Your task to perform on an android device: Open the stopwatch Image 0: 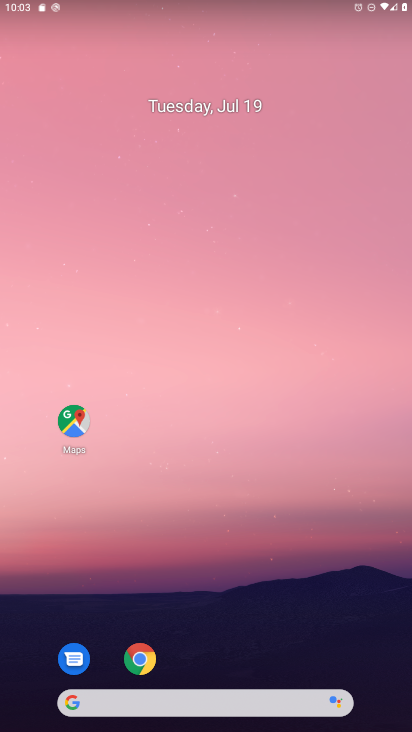
Step 0: drag from (202, 606) to (200, 268)
Your task to perform on an android device: Open the stopwatch Image 1: 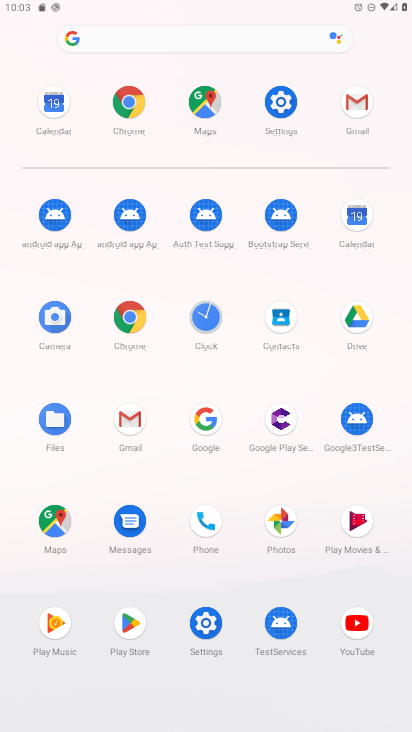
Step 1: click (202, 322)
Your task to perform on an android device: Open the stopwatch Image 2: 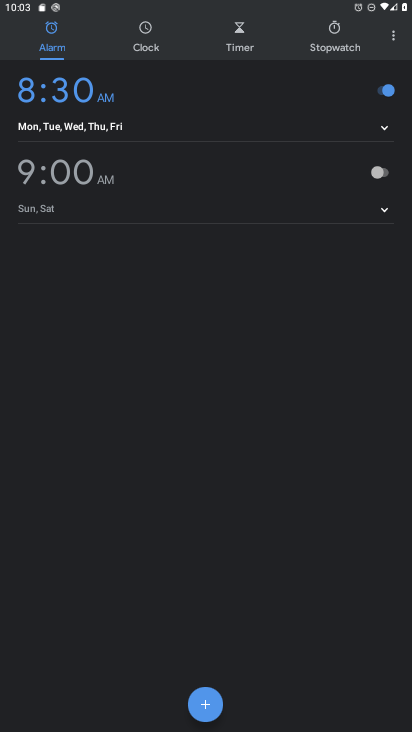
Step 2: click (311, 44)
Your task to perform on an android device: Open the stopwatch Image 3: 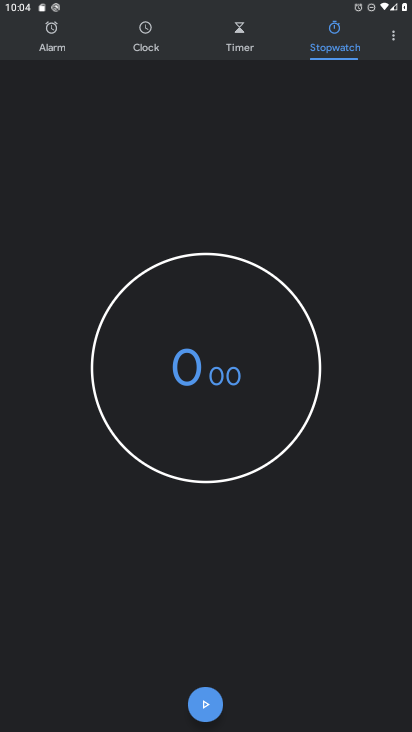
Step 3: task complete